Your task to perform on an android device: toggle priority inbox in the gmail app Image 0: 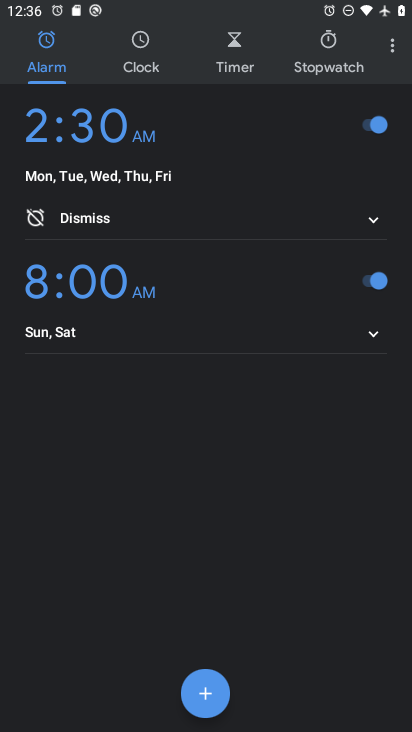
Step 0: press home button
Your task to perform on an android device: toggle priority inbox in the gmail app Image 1: 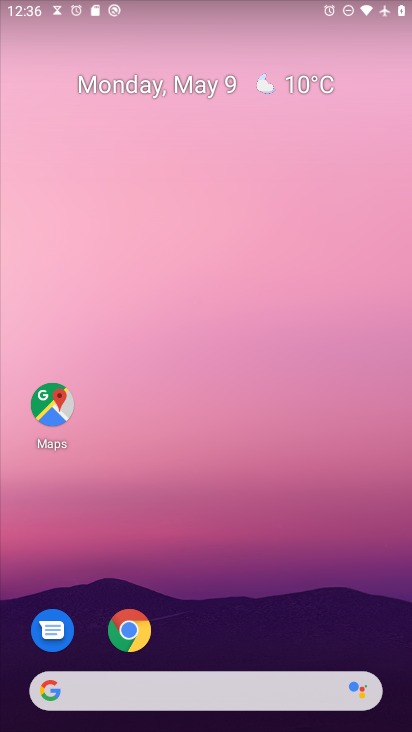
Step 1: drag from (192, 687) to (339, 118)
Your task to perform on an android device: toggle priority inbox in the gmail app Image 2: 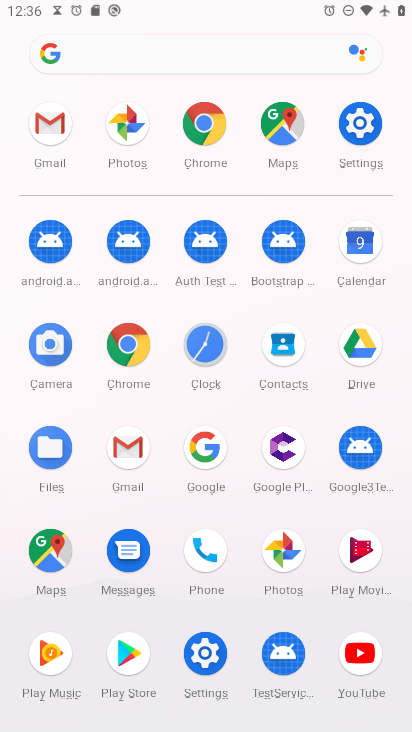
Step 2: click (48, 129)
Your task to perform on an android device: toggle priority inbox in the gmail app Image 3: 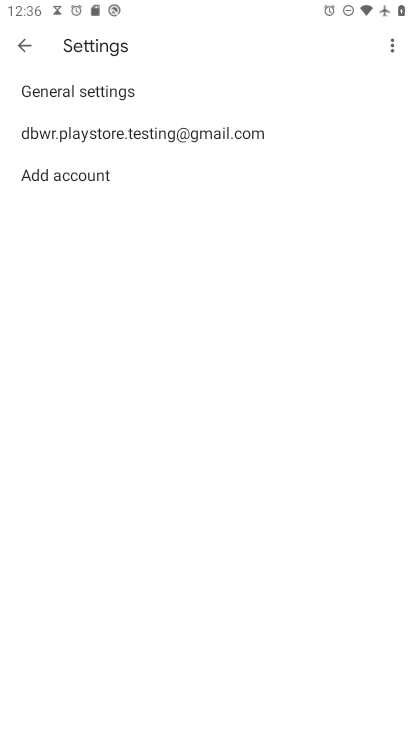
Step 3: click (114, 140)
Your task to perform on an android device: toggle priority inbox in the gmail app Image 4: 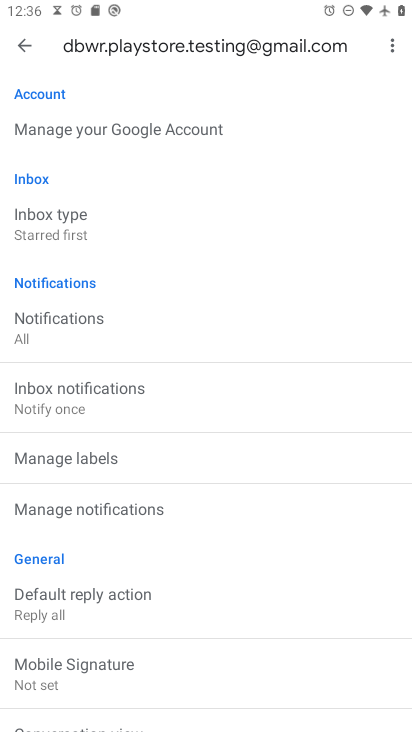
Step 4: click (53, 226)
Your task to perform on an android device: toggle priority inbox in the gmail app Image 5: 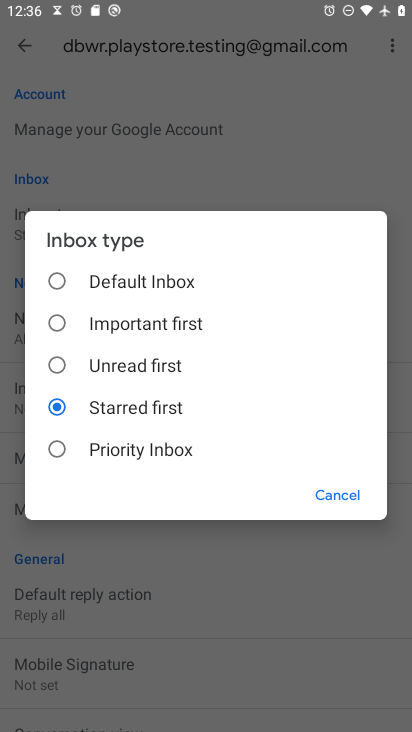
Step 5: click (59, 448)
Your task to perform on an android device: toggle priority inbox in the gmail app Image 6: 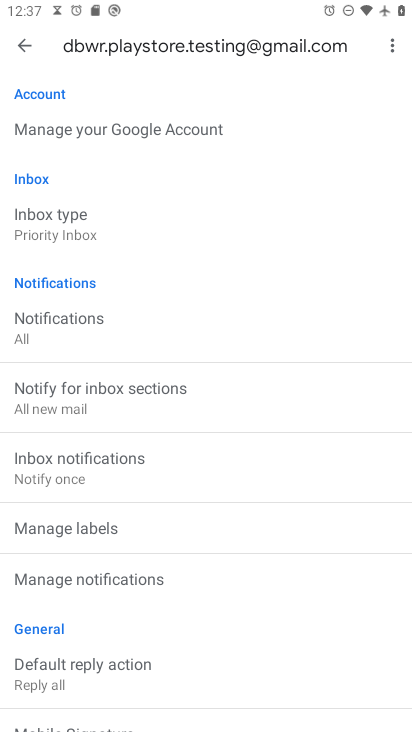
Step 6: task complete